Your task to perform on an android device: Show me popular videos on Youtube Image 0: 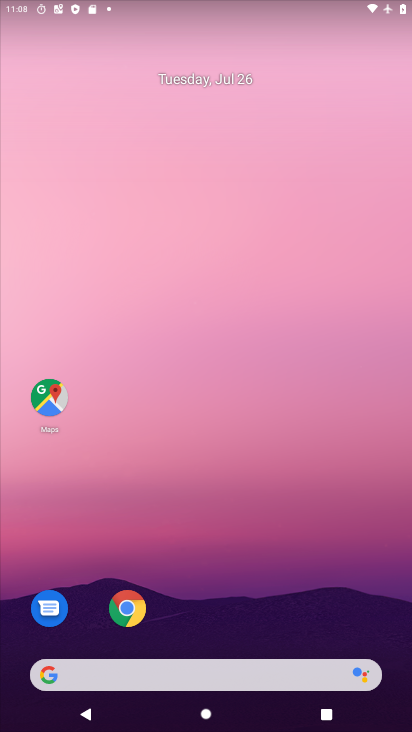
Step 0: drag from (194, 602) to (216, 17)
Your task to perform on an android device: Show me popular videos on Youtube Image 1: 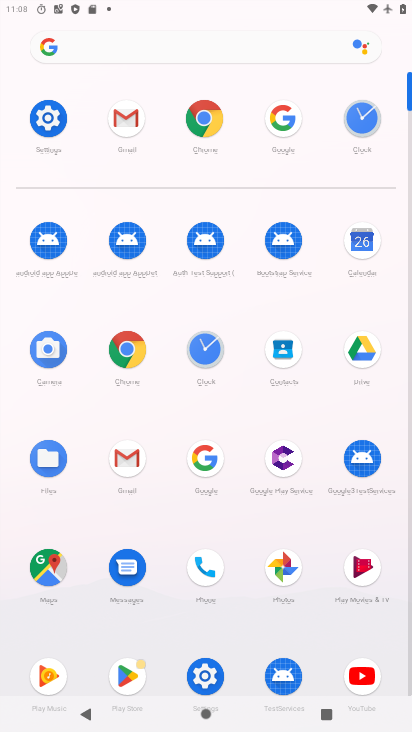
Step 1: click (368, 679)
Your task to perform on an android device: Show me popular videos on Youtube Image 2: 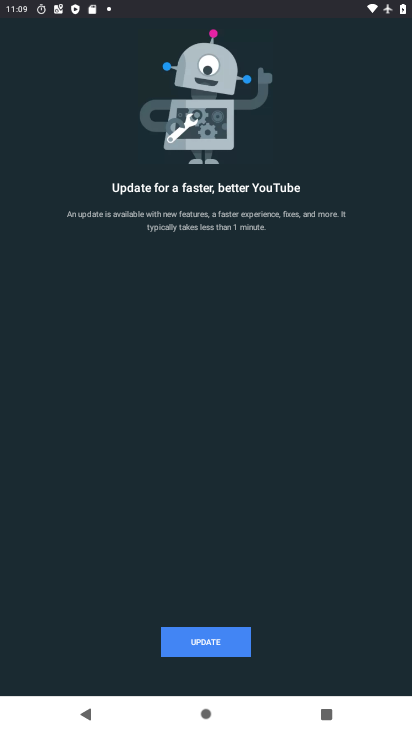
Step 2: click (219, 660)
Your task to perform on an android device: Show me popular videos on Youtube Image 3: 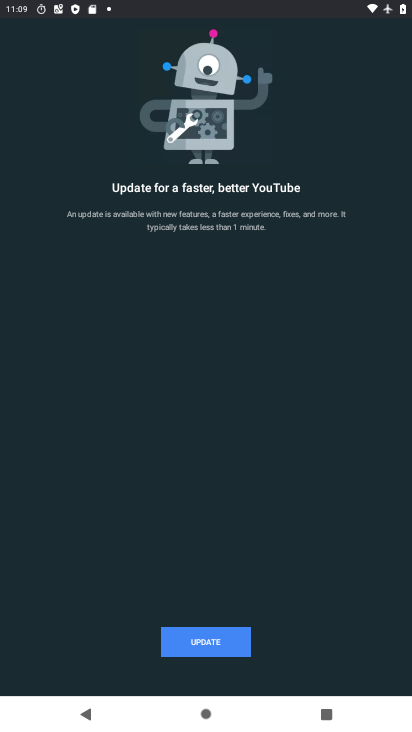
Step 3: click (194, 657)
Your task to perform on an android device: Show me popular videos on Youtube Image 4: 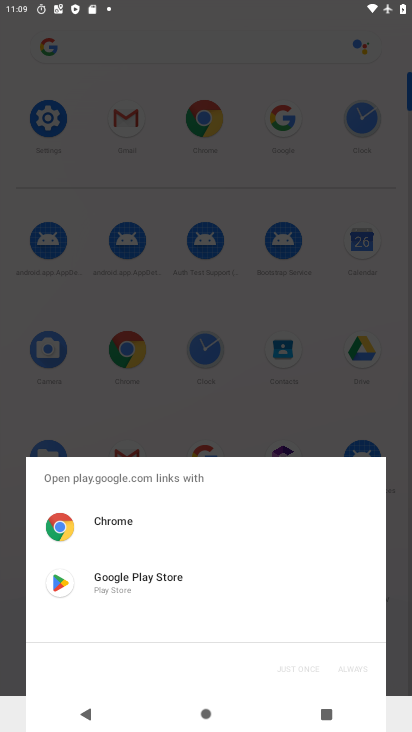
Step 4: drag from (137, 588) to (224, 588)
Your task to perform on an android device: Show me popular videos on Youtube Image 5: 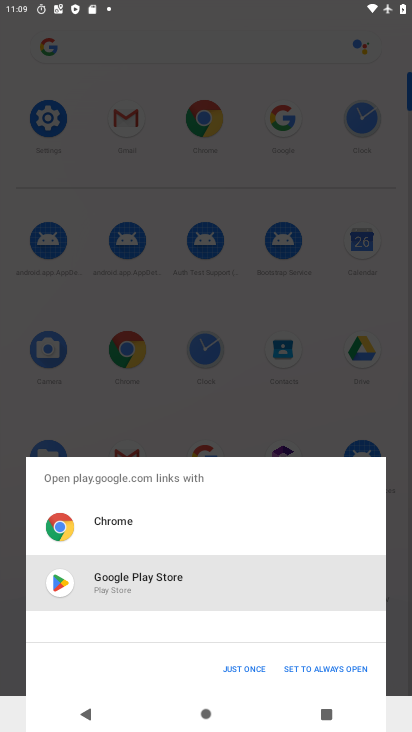
Step 5: click (248, 667)
Your task to perform on an android device: Show me popular videos on Youtube Image 6: 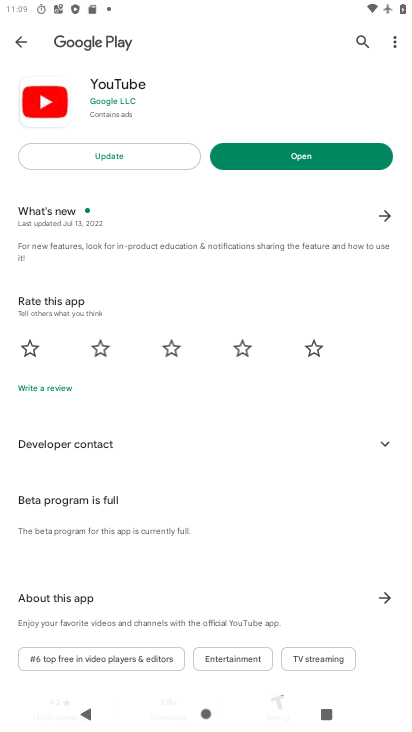
Step 6: click (112, 151)
Your task to perform on an android device: Show me popular videos on Youtube Image 7: 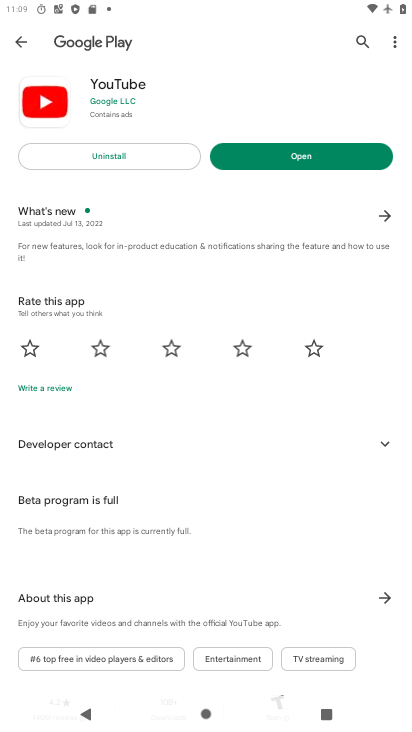
Step 7: click (297, 160)
Your task to perform on an android device: Show me popular videos on Youtube Image 8: 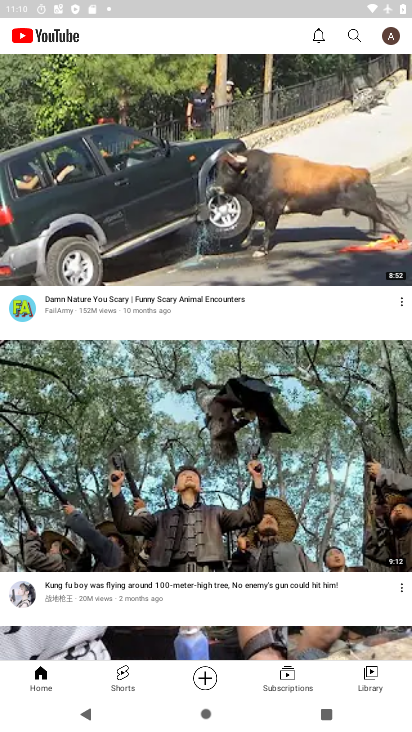
Step 8: click (356, 37)
Your task to perform on an android device: Show me popular videos on Youtube Image 9: 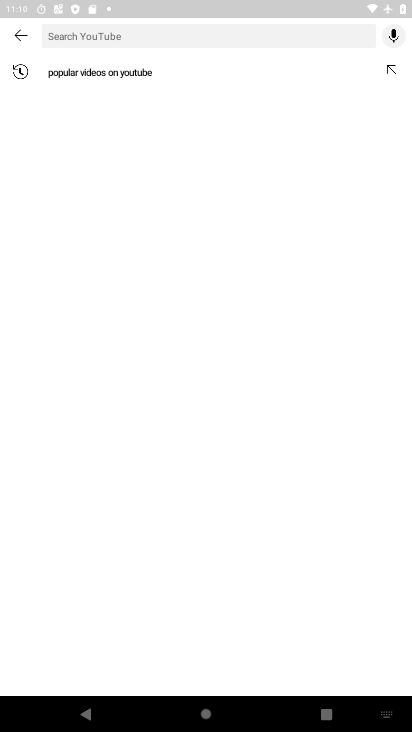
Step 9: click (192, 33)
Your task to perform on an android device: Show me popular videos on Youtube Image 10: 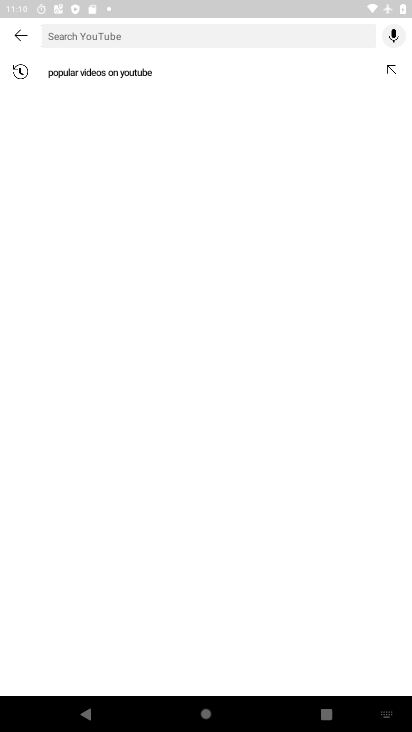
Step 10: type "popular videos"
Your task to perform on an android device: Show me popular videos on Youtube Image 11: 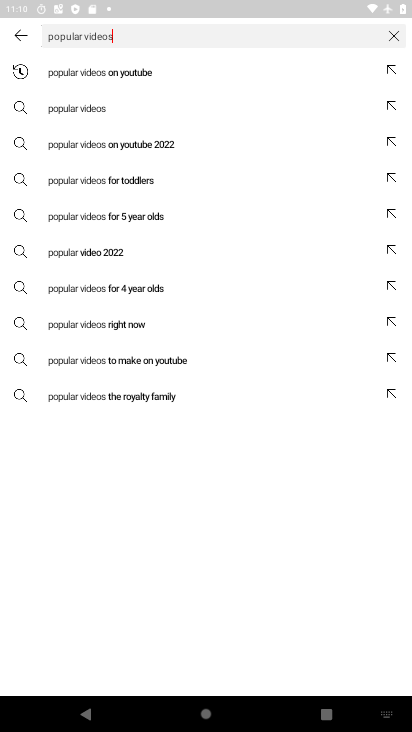
Step 11: click (115, 112)
Your task to perform on an android device: Show me popular videos on Youtube Image 12: 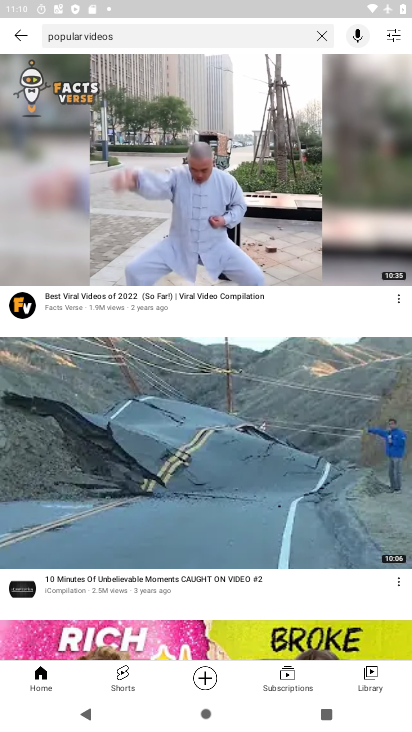
Step 12: task complete